Your task to perform on an android device: Check the news Image 0: 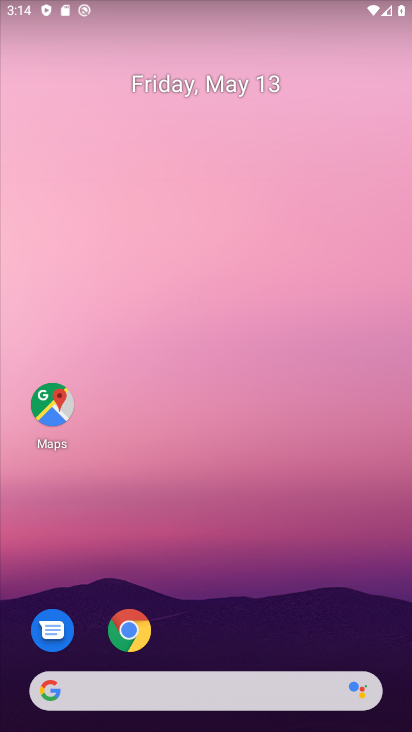
Step 0: click (203, 657)
Your task to perform on an android device: Check the news Image 1: 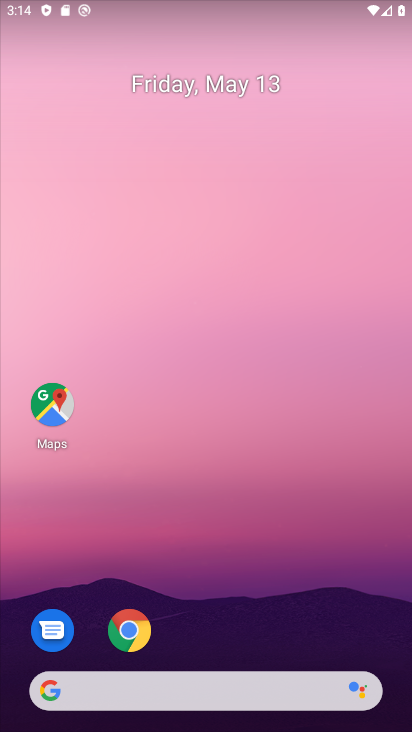
Step 1: click (185, 691)
Your task to perform on an android device: Check the news Image 2: 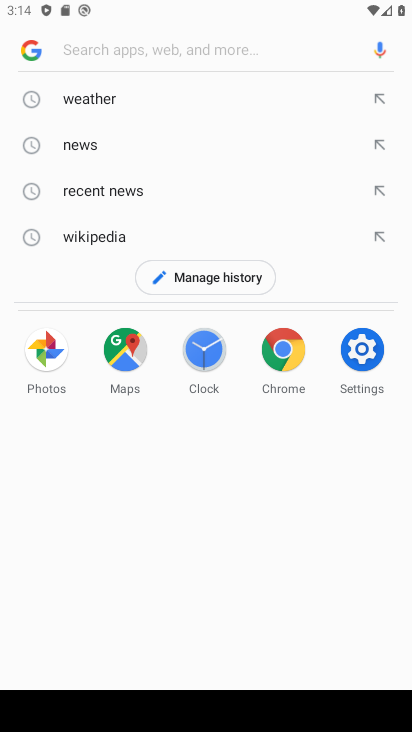
Step 2: click (90, 147)
Your task to perform on an android device: Check the news Image 3: 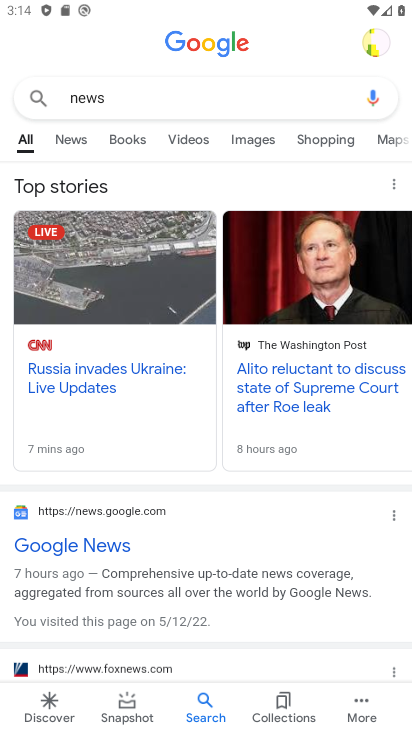
Step 3: click (67, 134)
Your task to perform on an android device: Check the news Image 4: 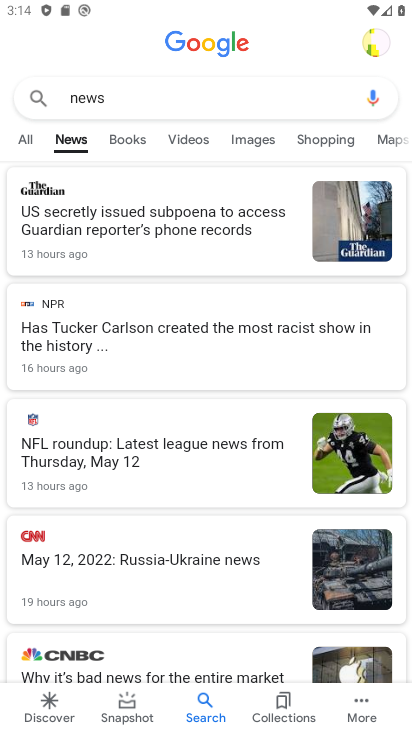
Step 4: task complete